Your task to perform on an android device: Open calendar and show me the first week of next month Image 0: 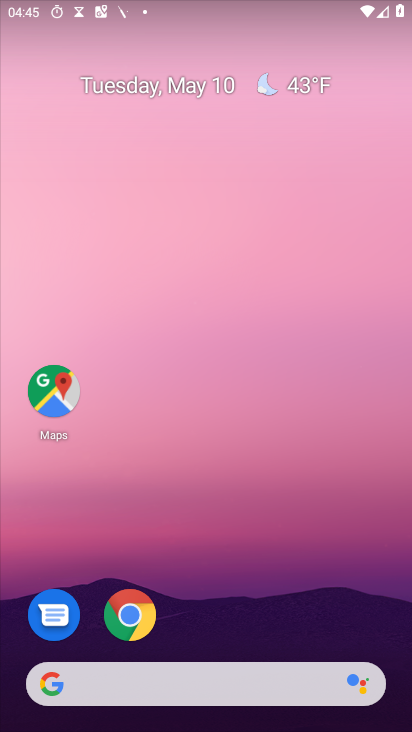
Step 0: drag from (263, 653) to (300, 30)
Your task to perform on an android device: Open calendar and show me the first week of next month Image 1: 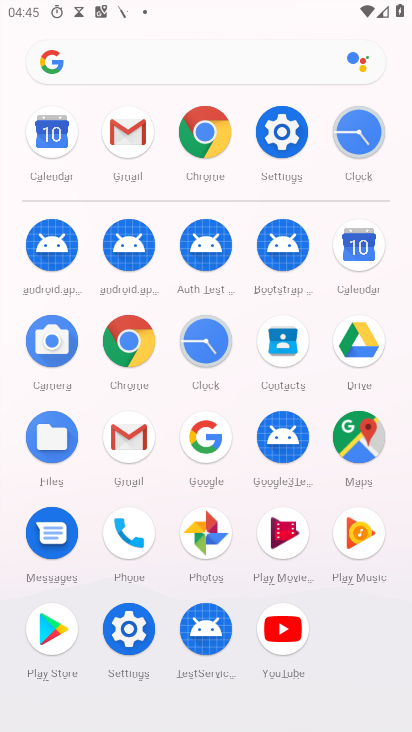
Step 1: click (357, 259)
Your task to perform on an android device: Open calendar and show me the first week of next month Image 2: 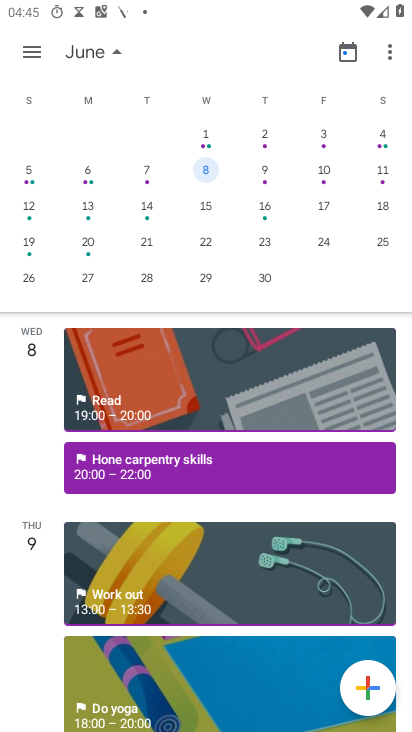
Step 2: drag from (130, 220) to (194, 216)
Your task to perform on an android device: Open calendar and show me the first week of next month Image 3: 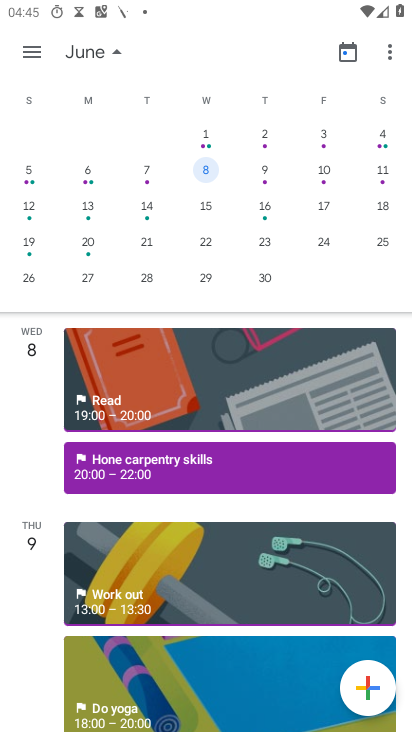
Step 3: click (324, 136)
Your task to perform on an android device: Open calendar and show me the first week of next month Image 4: 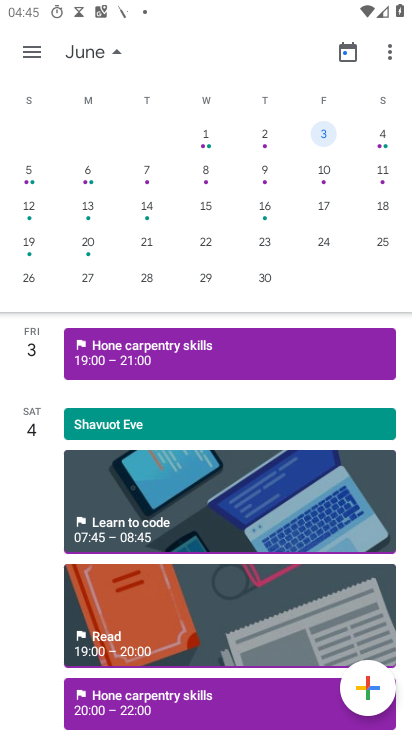
Step 4: click (36, 46)
Your task to perform on an android device: Open calendar and show me the first week of next month Image 5: 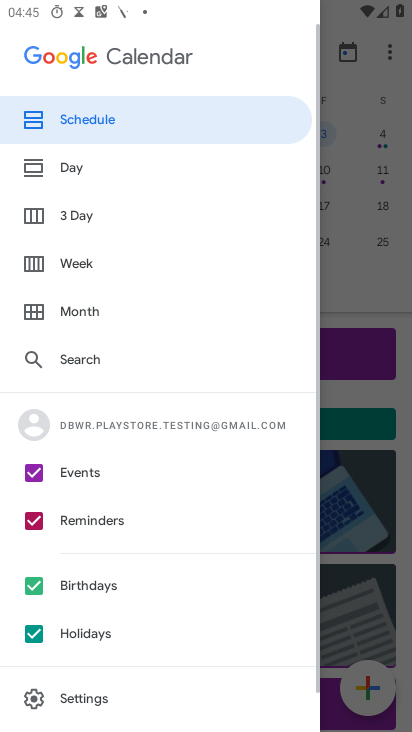
Step 5: click (106, 264)
Your task to perform on an android device: Open calendar and show me the first week of next month Image 6: 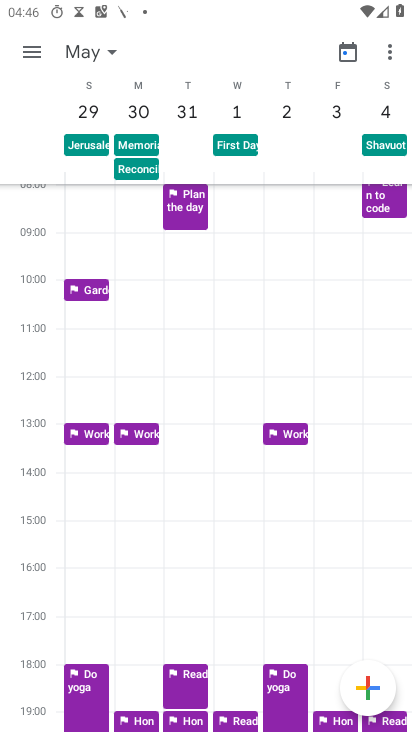
Step 6: task complete